Your task to perform on an android device: find which apps use the phone's location Image 0: 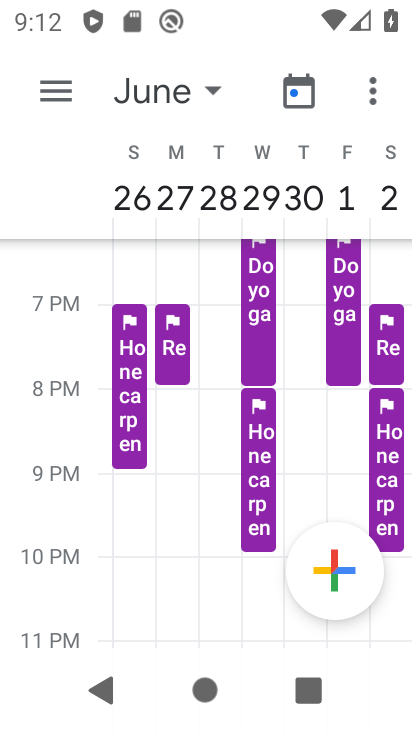
Step 0: press home button
Your task to perform on an android device: find which apps use the phone's location Image 1: 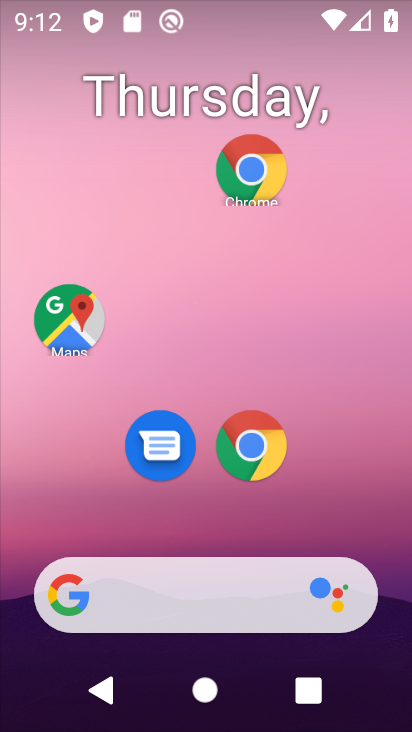
Step 1: drag from (218, 535) to (221, 16)
Your task to perform on an android device: find which apps use the phone's location Image 2: 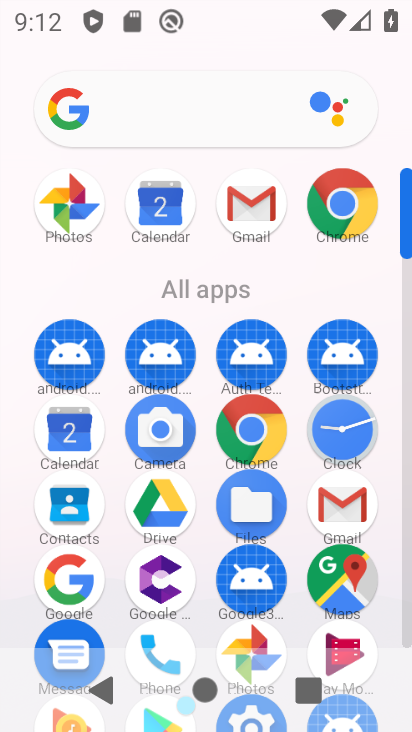
Step 2: drag from (209, 621) to (176, 93)
Your task to perform on an android device: find which apps use the phone's location Image 3: 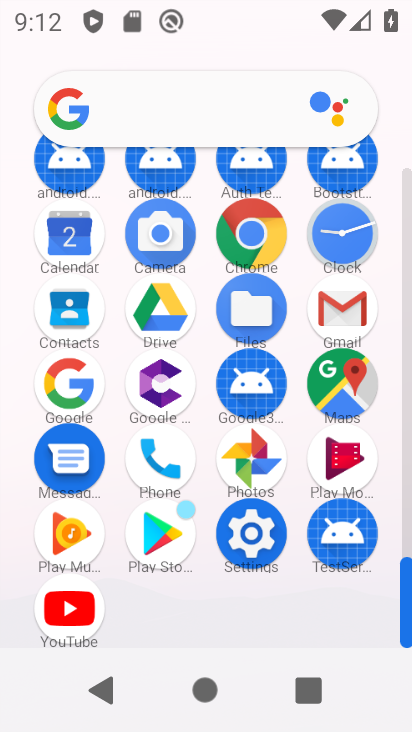
Step 3: click (251, 522)
Your task to perform on an android device: find which apps use the phone's location Image 4: 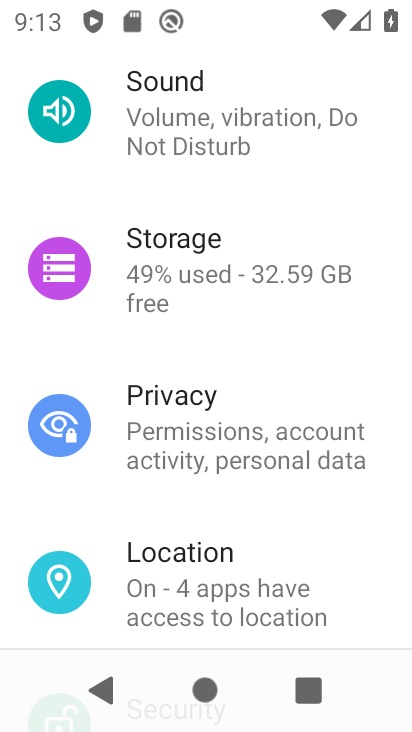
Step 4: drag from (209, 197) to (208, 319)
Your task to perform on an android device: find which apps use the phone's location Image 5: 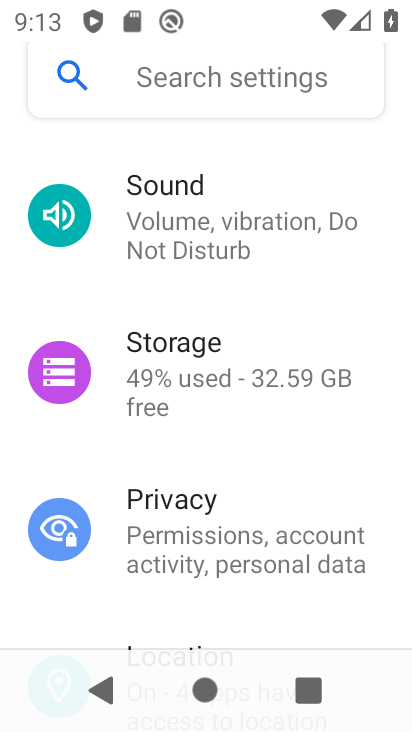
Step 5: click (187, 638)
Your task to perform on an android device: find which apps use the phone's location Image 6: 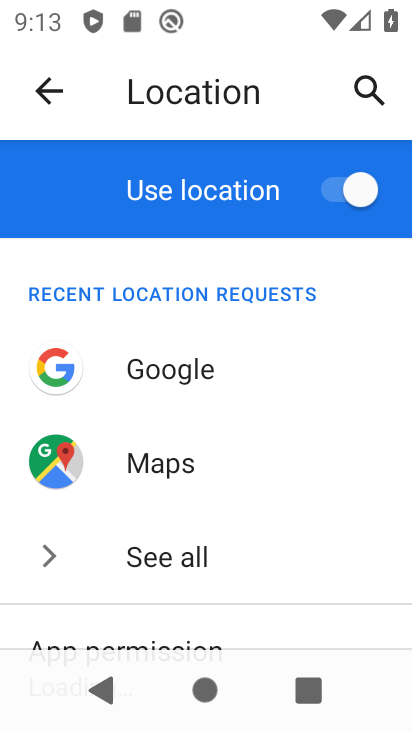
Step 6: drag from (187, 638) to (129, 134)
Your task to perform on an android device: find which apps use the phone's location Image 7: 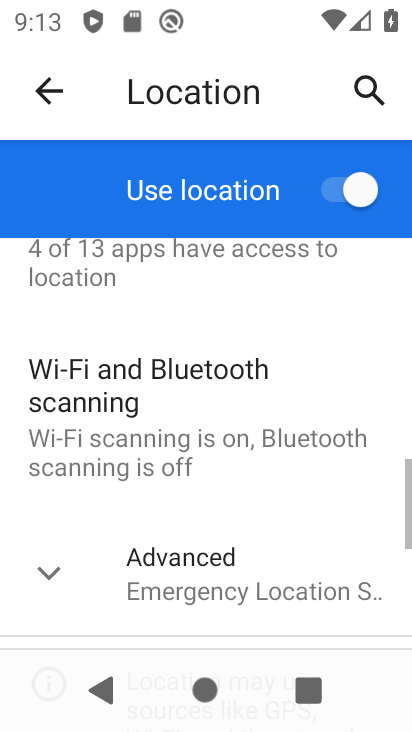
Step 7: click (124, 267)
Your task to perform on an android device: find which apps use the phone's location Image 8: 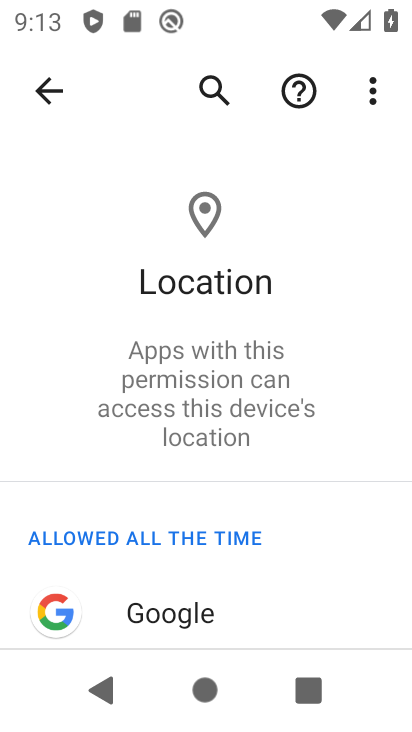
Step 8: task complete